Your task to perform on an android device: toggle notifications settings in the gmail app Image 0: 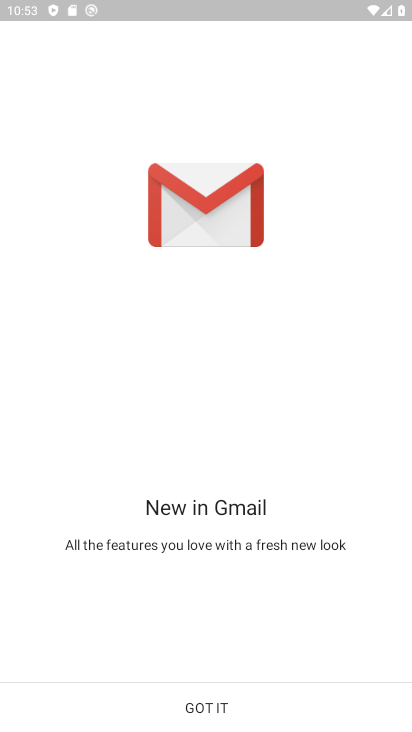
Step 0: click (288, 702)
Your task to perform on an android device: toggle notifications settings in the gmail app Image 1: 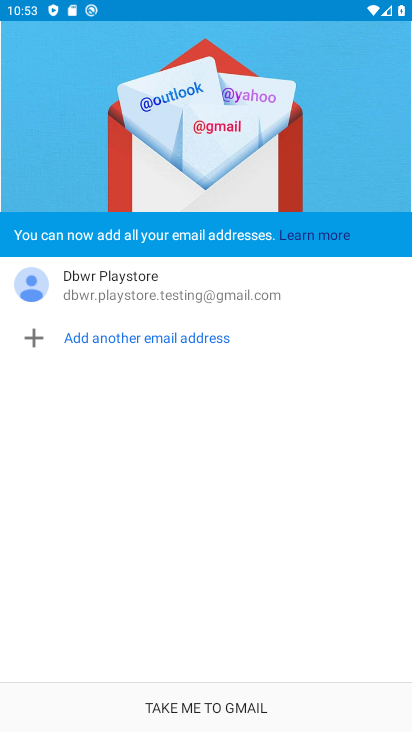
Step 1: click (288, 702)
Your task to perform on an android device: toggle notifications settings in the gmail app Image 2: 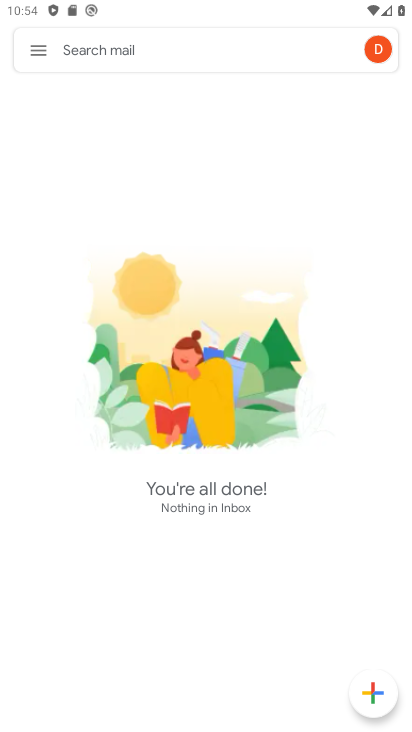
Step 2: click (37, 54)
Your task to perform on an android device: toggle notifications settings in the gmail app Image 3: 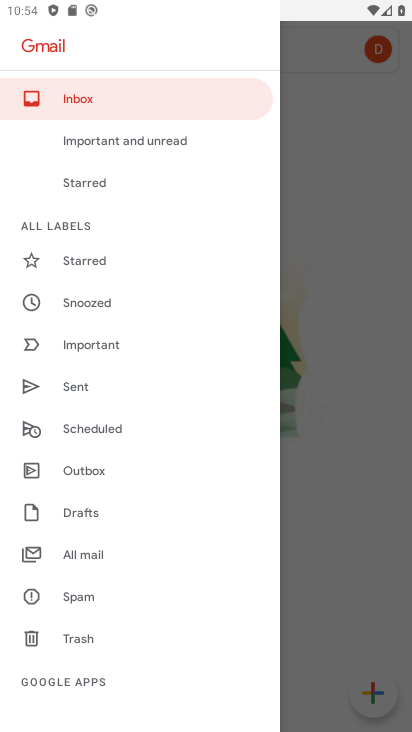
Step 3: drag from (182, 654) to (224, 270)
Your task to perform on an android device: toggle notifications settings in the gmail app Image 4: 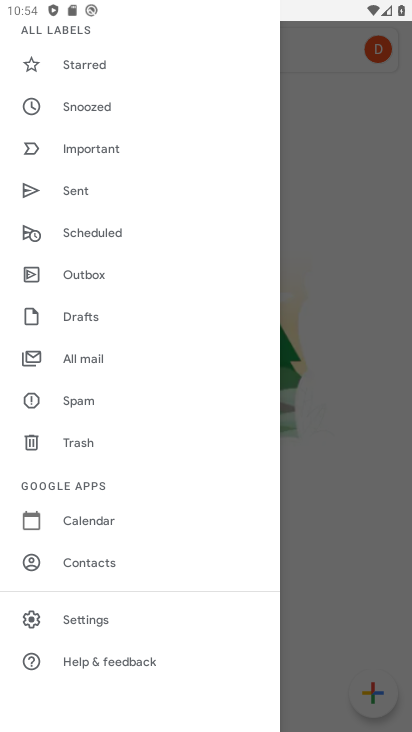
Step 4: click (159, 634)
Your task to perform on an android device: toggle notifications settings in the gmail app Image 5: 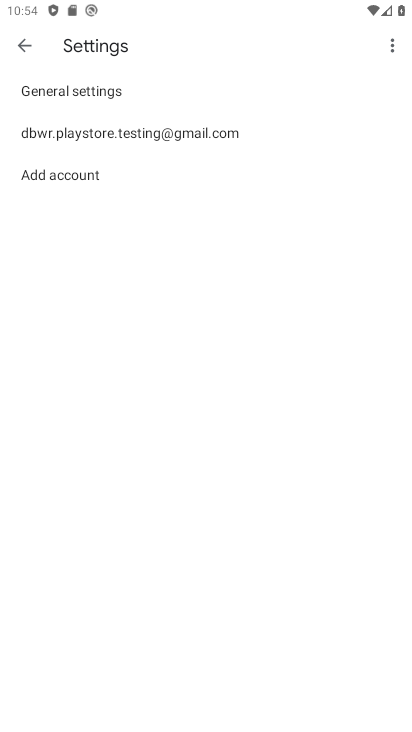
Step 5: click (266, 125)
Your task to perform on an android device: toggle notifications settings in the gmail app Image 6: 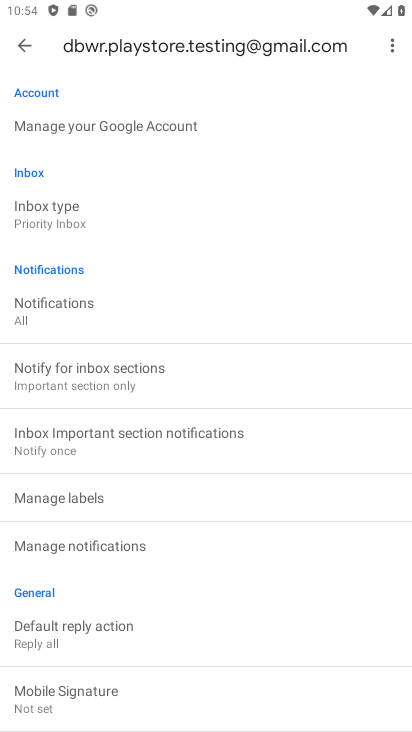
Step 6: click (251, 544)
Your task to perform on an android device: toggle notifications settings in the gmail app Image 7: 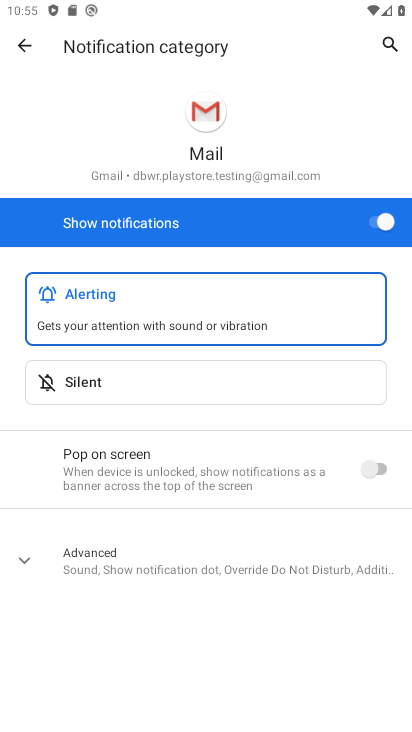
Step 7: click (366, 397)
Your task to perform on an android device: toggle notifications settings in the gmail app Image 8: 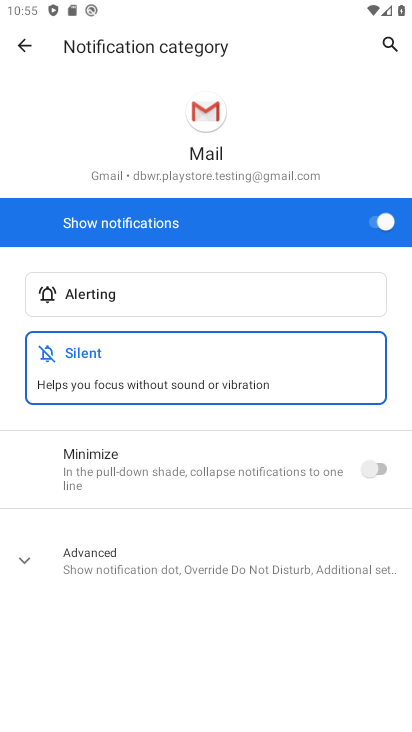
Step 8: click (379, 467)
Your task to perform on an android device: toggle notifications settings in the gmail app Image 9: 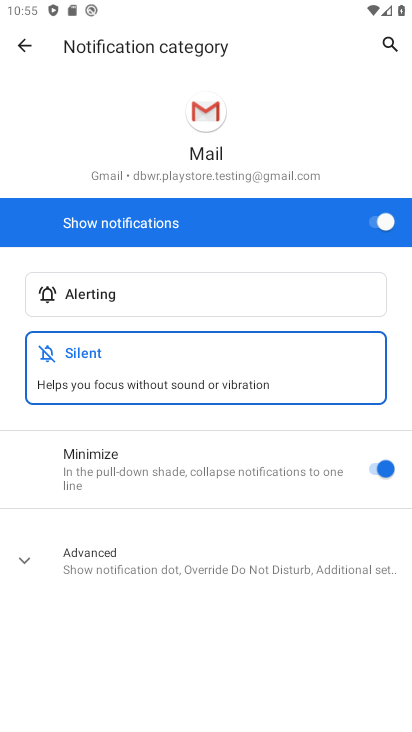
Step 9: task complete